Your task to perform on an android device: Go to Amazon Image 0: 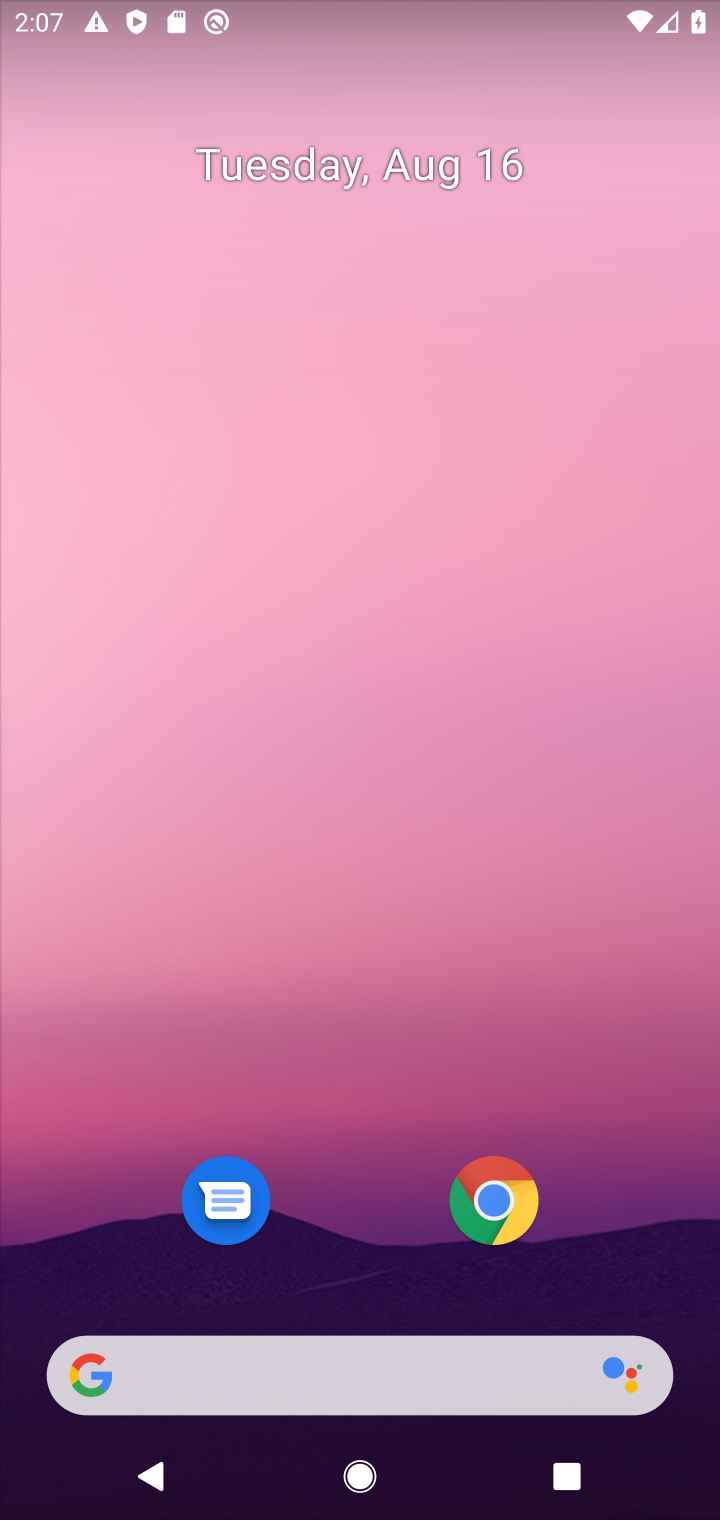
Step 0: click (151, 1381)
Your task to perform on an android device: Go to Amazon Image 1: 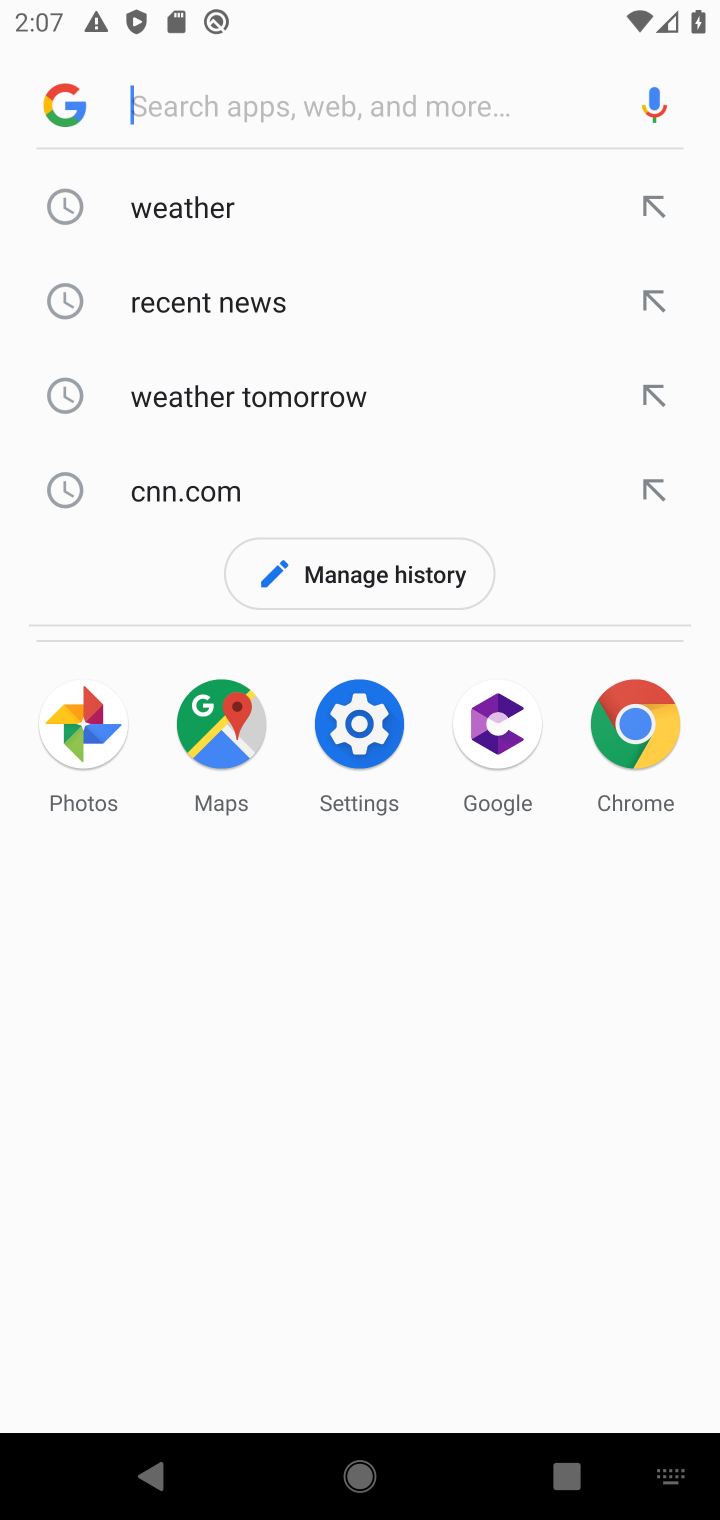
Step 1: type "Amazon"
Your task to perform on an android device: Go to Amazon Image 2: 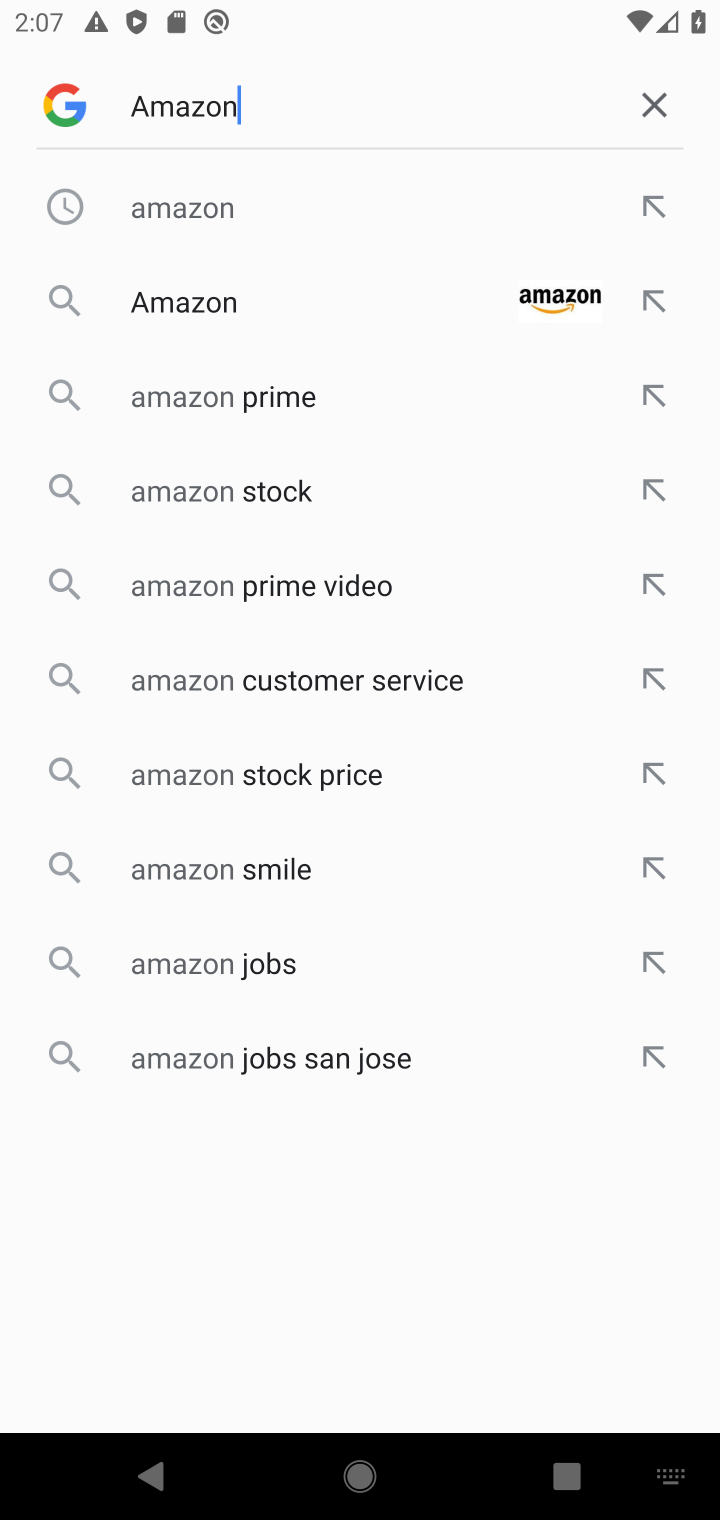
Step 2: click (189, 313)
Your task to perform on an android device: Go to Amazon Image 3: 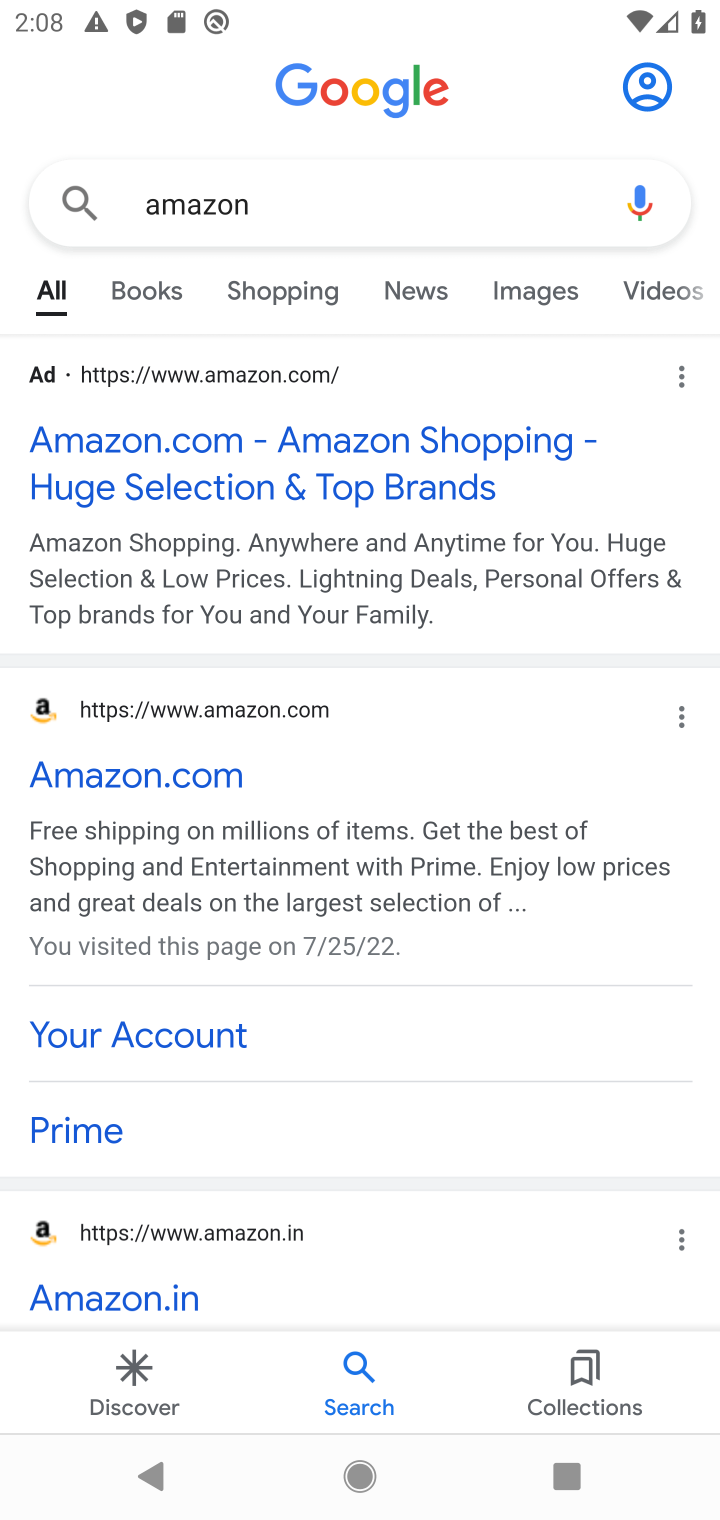
Step 3: task complete